Your task to perform on an android device: clear history in the chrome app Image 0: 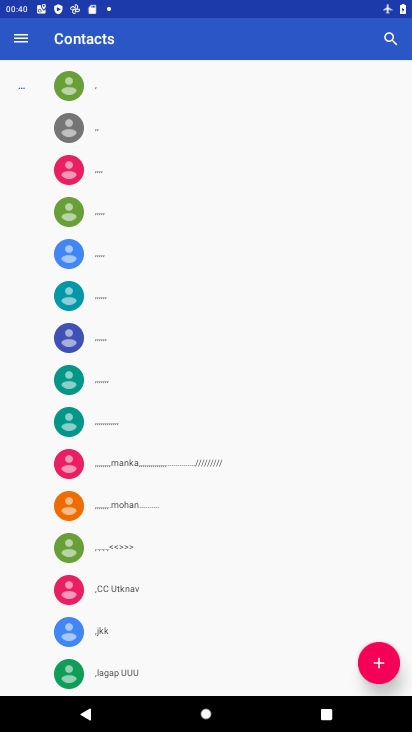
Step 0: press home button
Your task to perform on an android device: clear history in the chrome app Image 1: 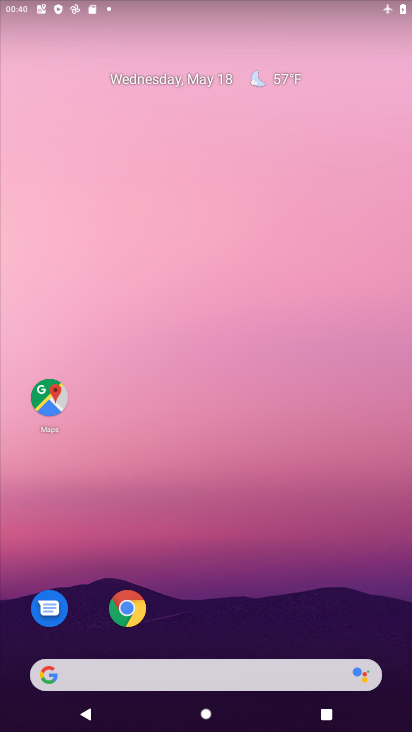
Step 1: click (128, 608)
Your task to perform on an android device: clear history in the chrome app Image 2: 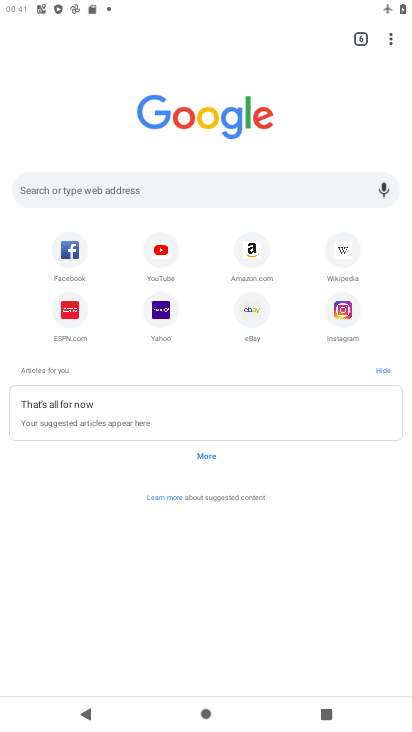
Step 2: click (385, 36)
Your task to perform on an android device: clear history in the chrome app Image 3: 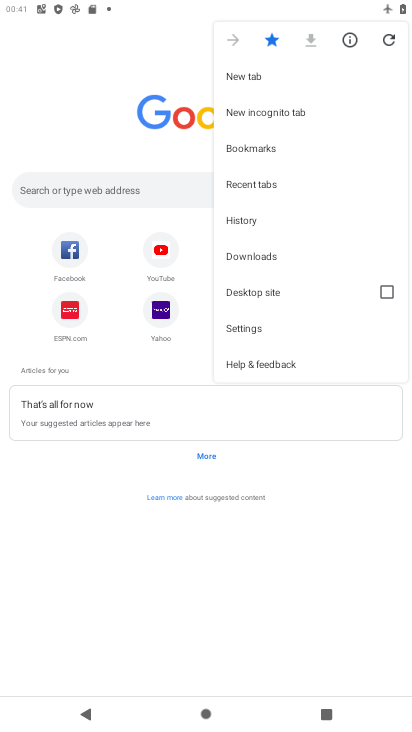
Step 3: click (245, 213)
Your task to perform on an android device: clear history in the chrome app Image 4: 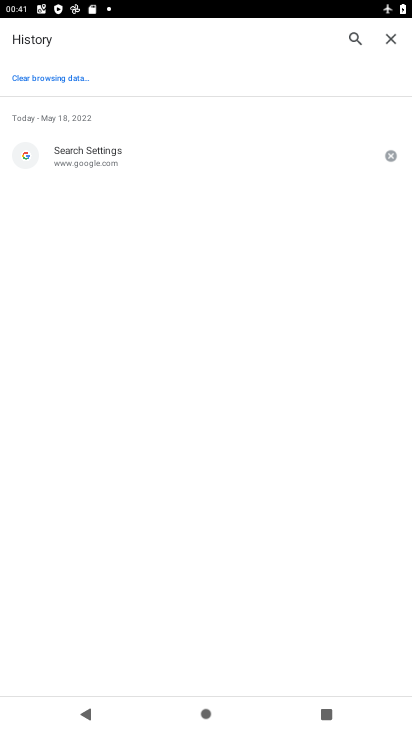
Step 4: click (47, 75)
Your task to perform on an android device: clear history in the chrome app Image 5: 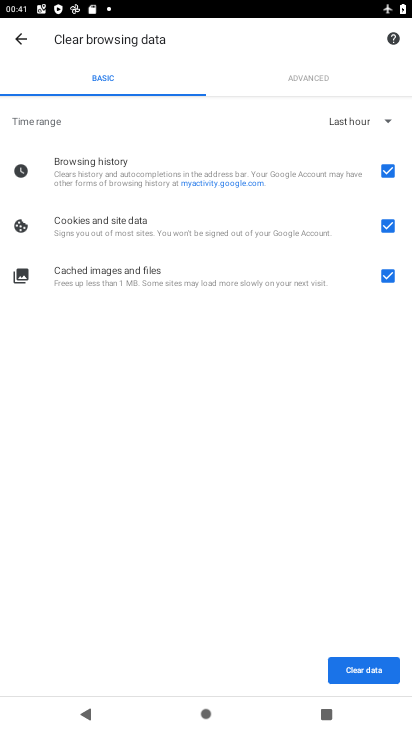
Step 5: click (368, 668)
Your task to perform on an android device: clear history in the chrome app Image 6: 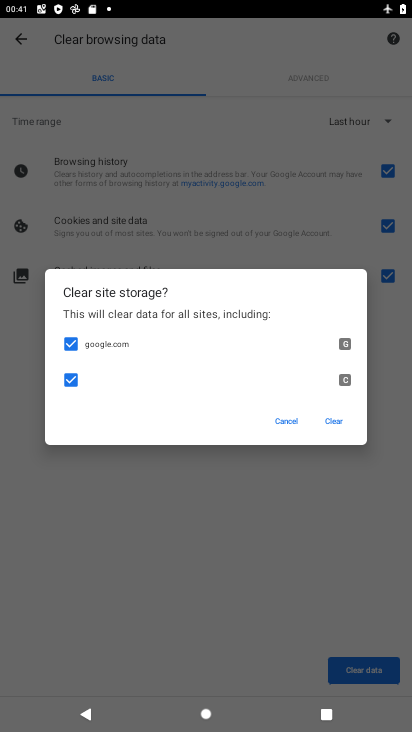
Step 6: click (332, 417)
Your task to perform on an android device: clear history in the chrome app Image 7: 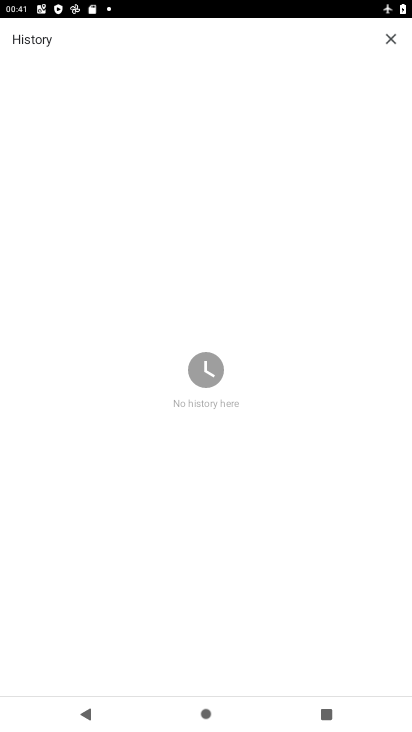
Step 7: task complete